Your task to perform on an android device: Go to Android settings Image 0: 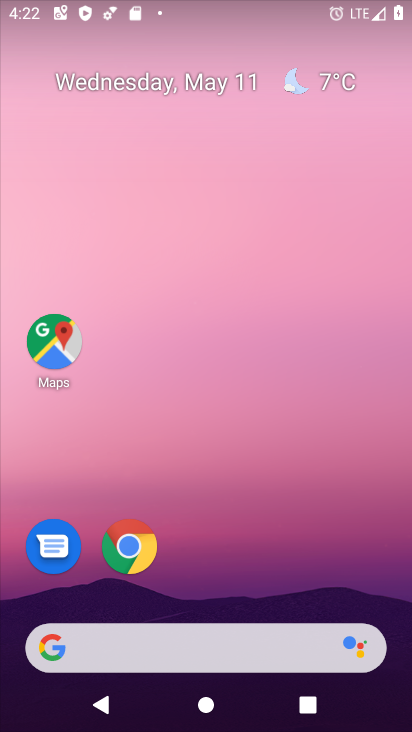
Step 0: drag from (332, 654) to (363, 40)
Your task to perform on an android device: Go to Android settings Image 1: 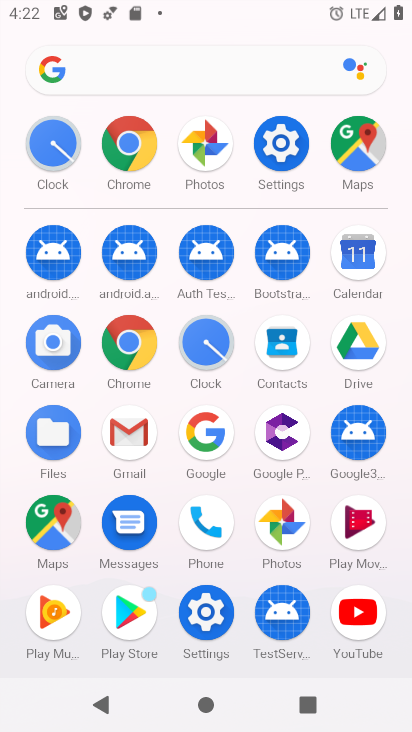
Step 1: click (266, 154)
Your task to perform on an android device: Go to Android settings Image 2: 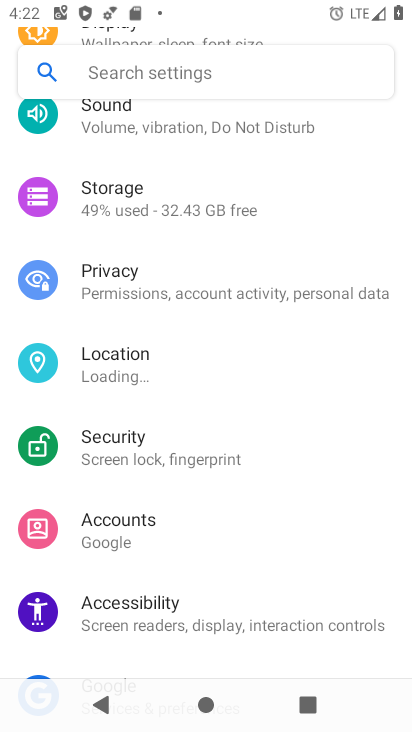
Step 2: drag from (266, 646) to (345, 68)
Your task to perform on an android device: Go to Android settings Image 3: 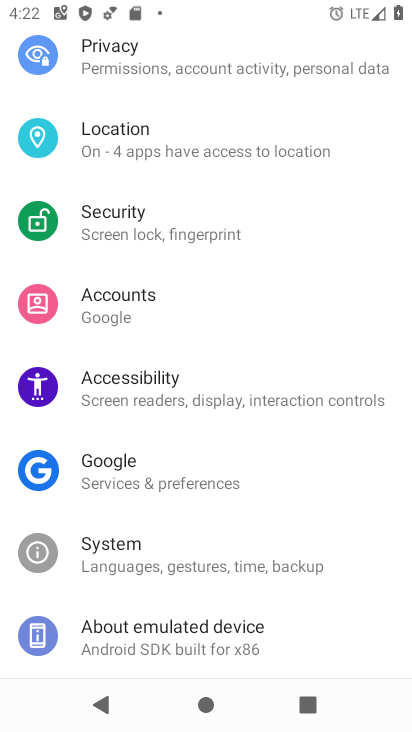
Step 3: click (266, 645)
Your task to perform on an android device: Go to Android settings Image 4: 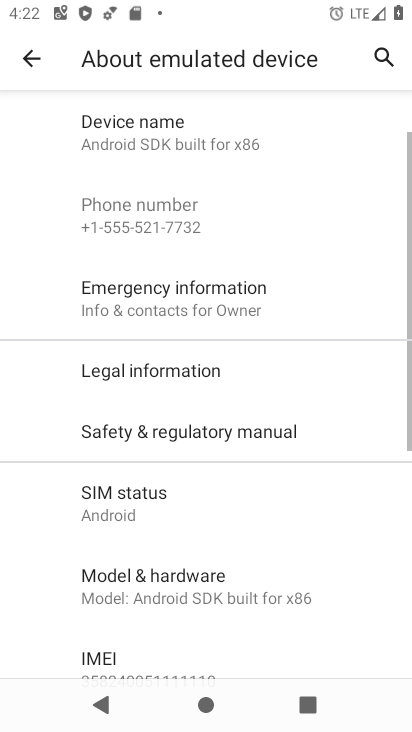
Step 4: drag from (266, 645) to (320, 205)
Your task to perform on an android device: Go to Android settings Image 5: 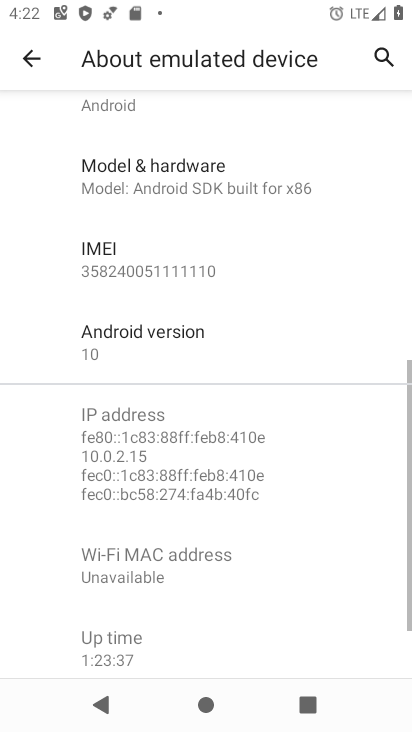
Step 5: click (178, 329)
Your task to perform on an android device: Go to Android settings Image 6: 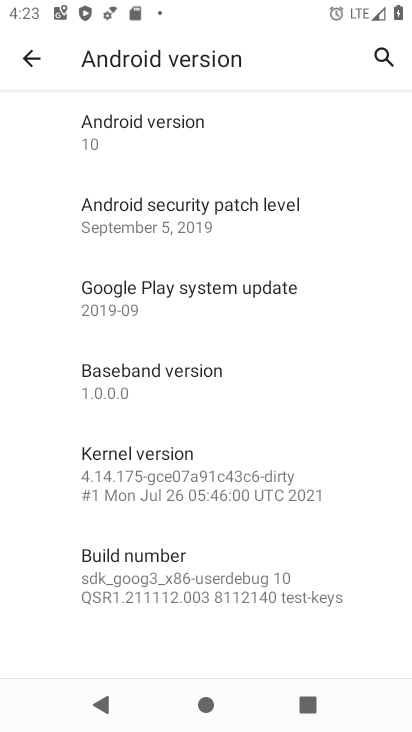
Step 6: task complete